Your task to perform on an android device: Open my contact list Image 0: 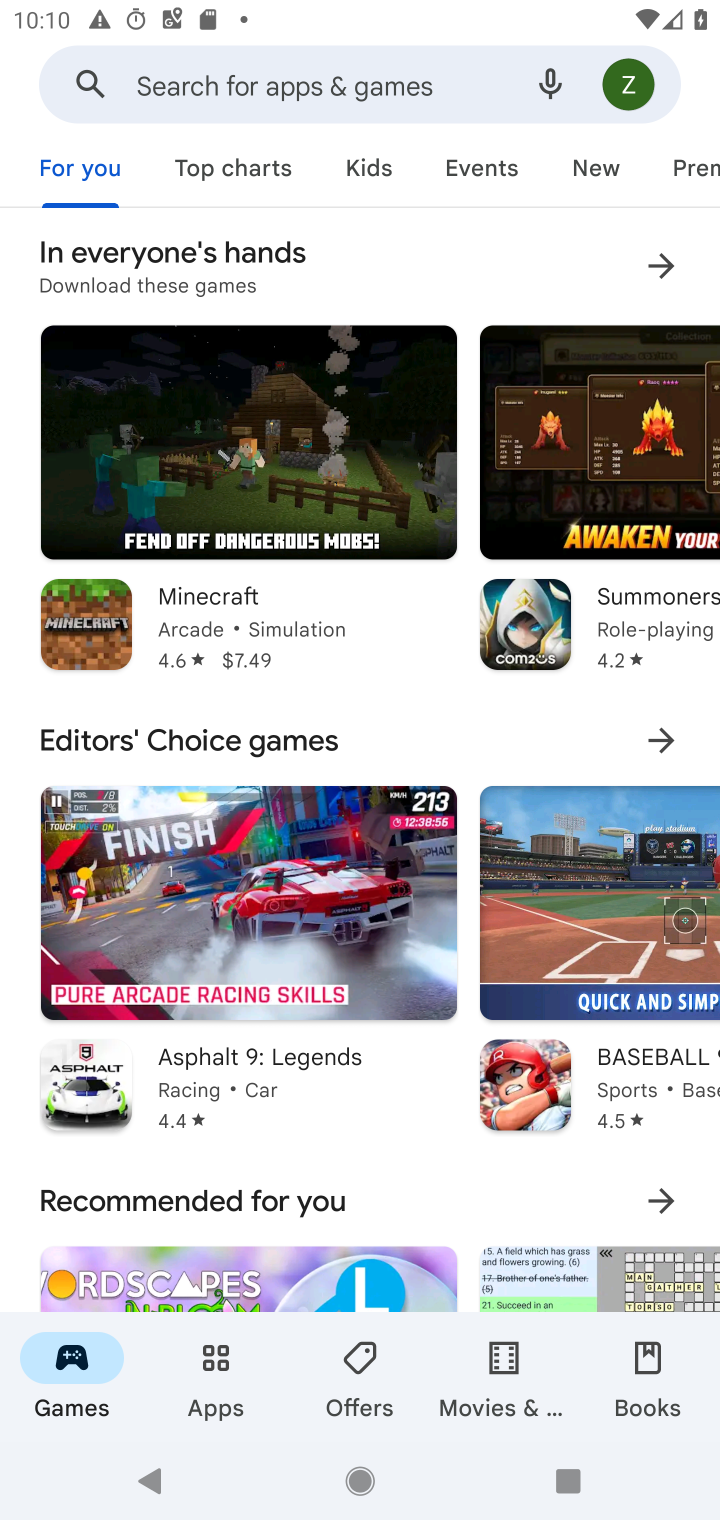
Step 0: press home button
Your task to perform on an android device: Open my contact list Image 1: 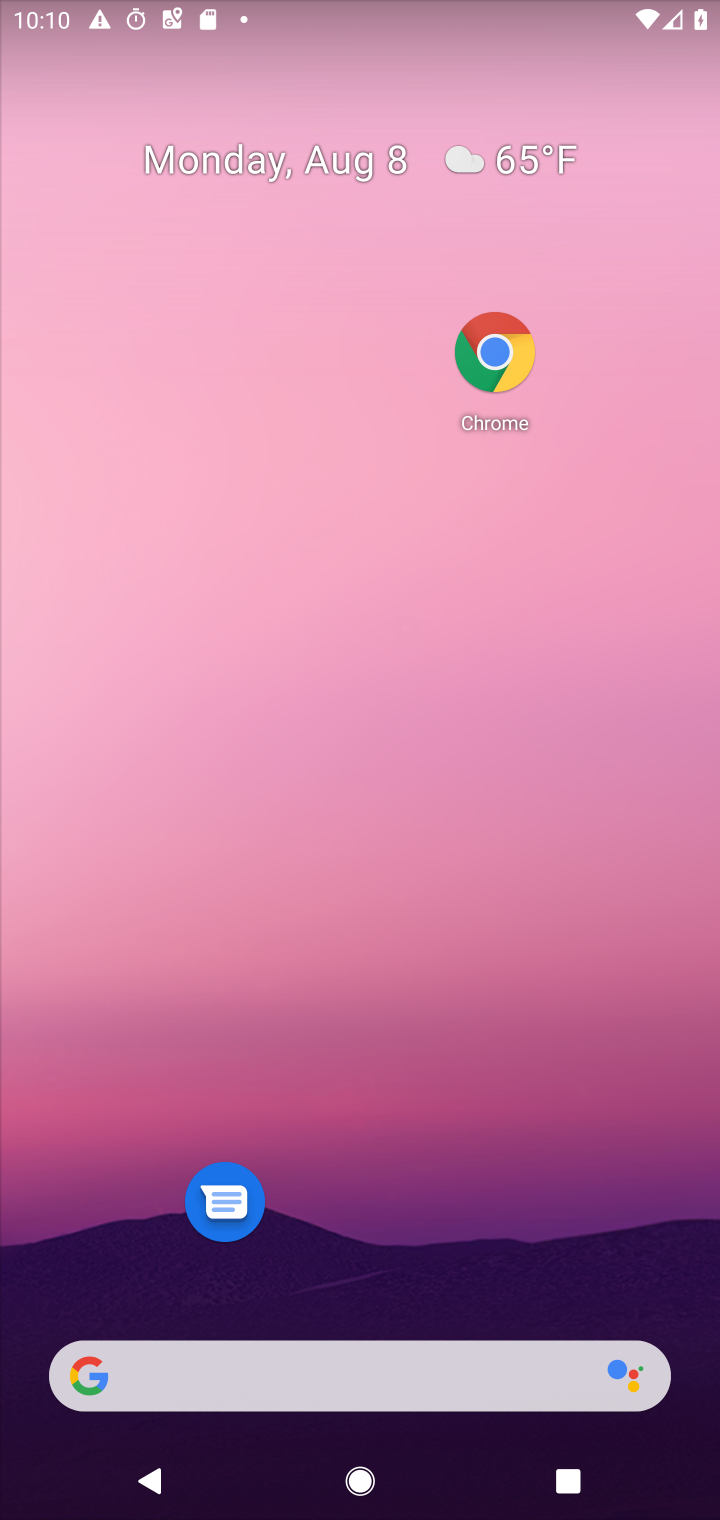
Step 1: drag from (388, 1196) to (550, 38)
Your task to perform on an android device: Open my contact list Image 2: 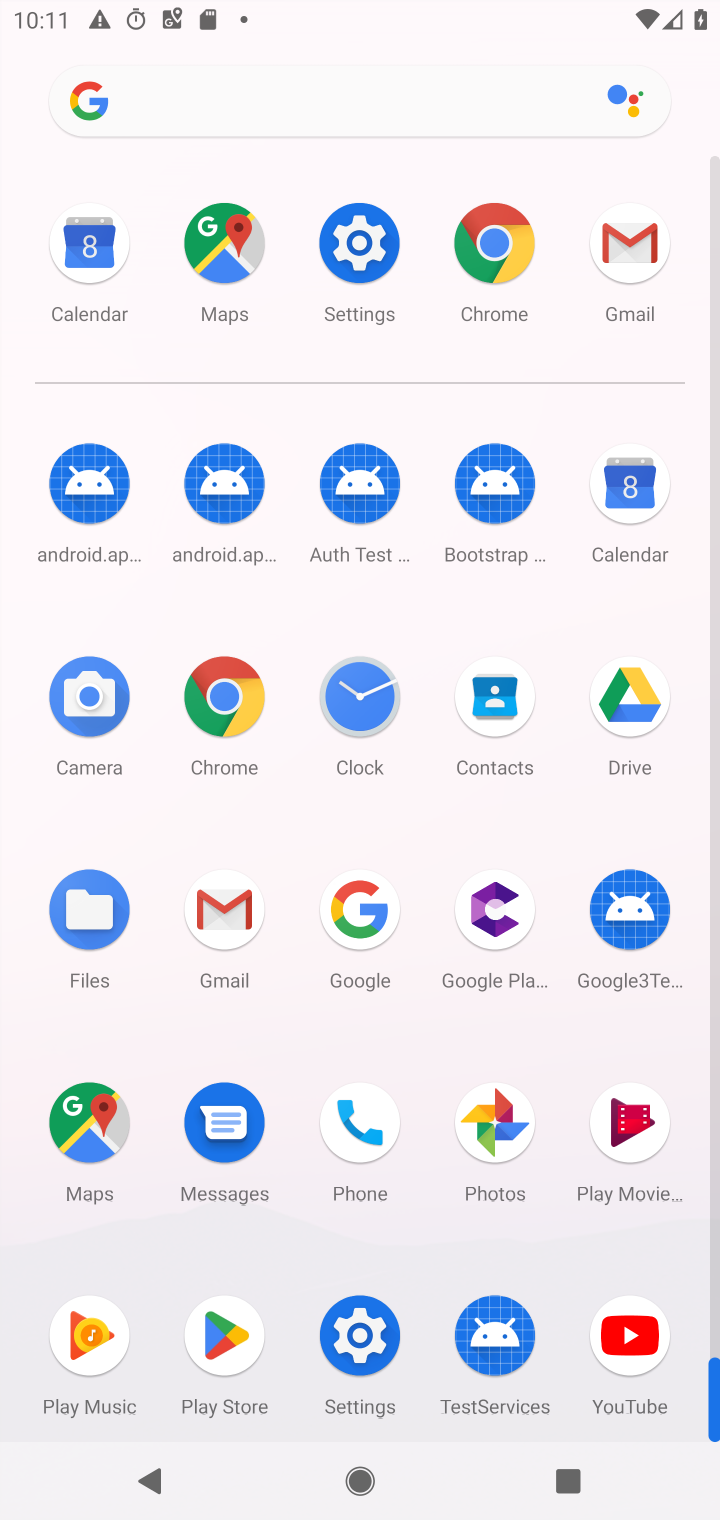
Step 2: click (490, 715)
Your task to perform on an android device: Open my contact list Image 3: 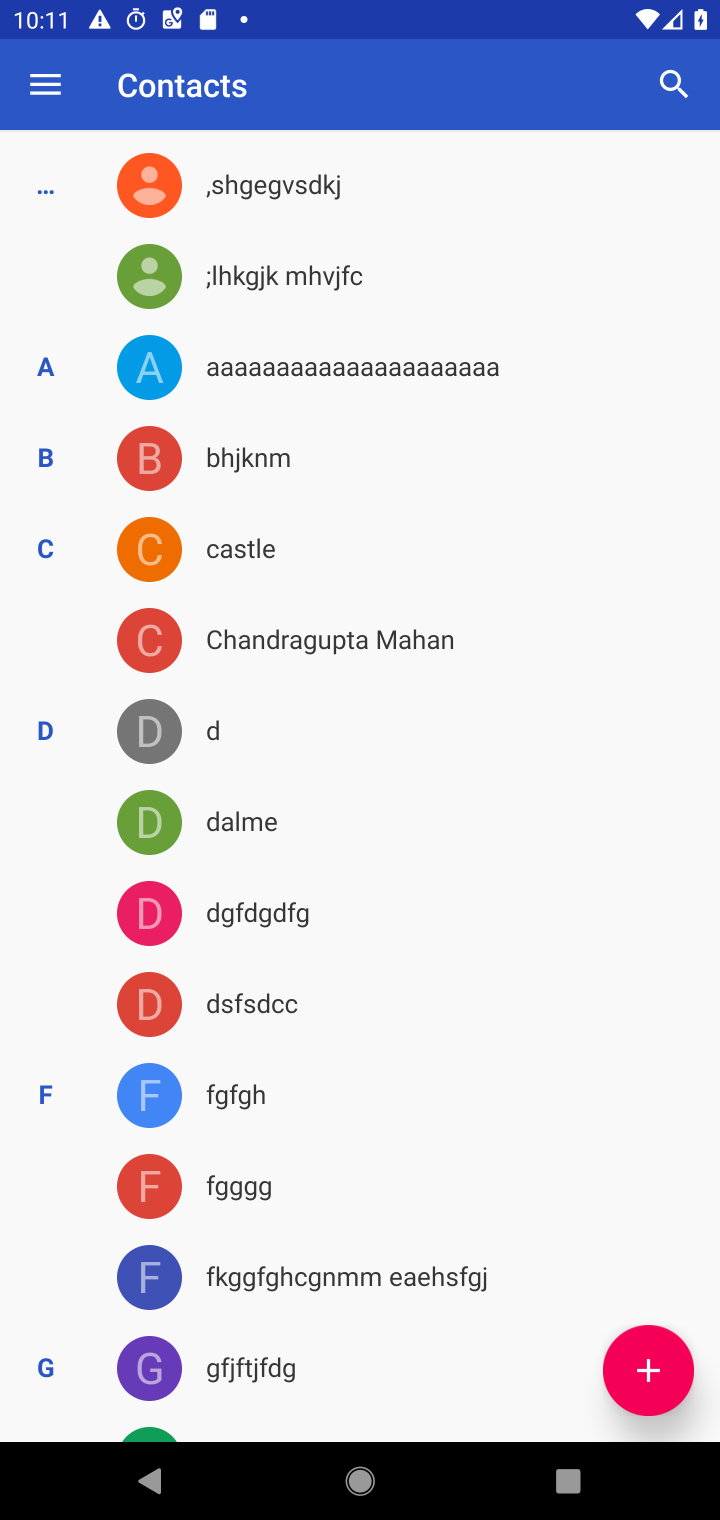
Step 3: task complete